Your task to perform on an android device: find snoozed emails in the gmail app Image 0: 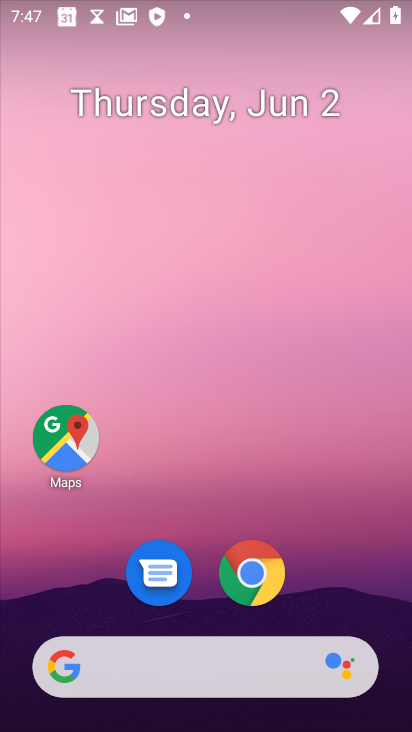
Step 0: drag from (160, 657) to (324, 122)
Your task to perform on an android device: find snoozed emails in the gmail app Image 1: 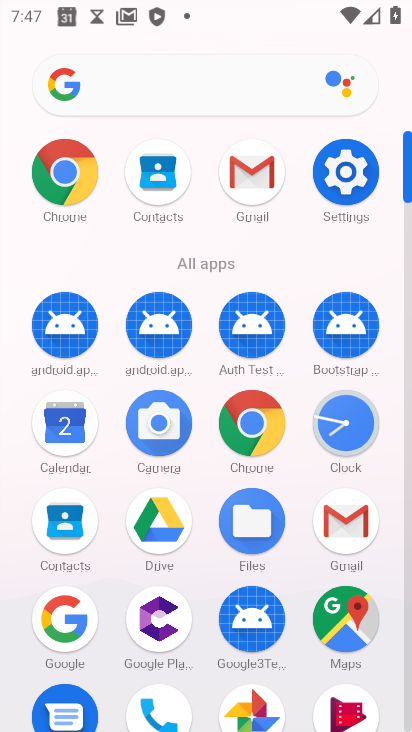
Step 1: click (261, 178)
Your task to perform on an android device: find snoozed emails in the gmail app Image 2: 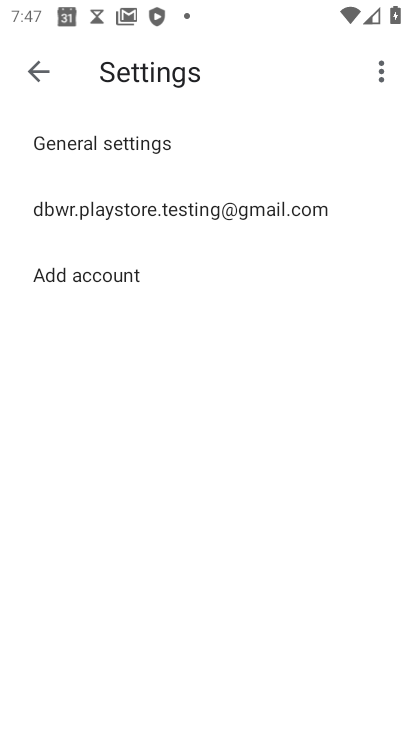
Step 2: click (44, 71)
Your task to perform on an android device: find snoozed emails in the gmail app Image 3: 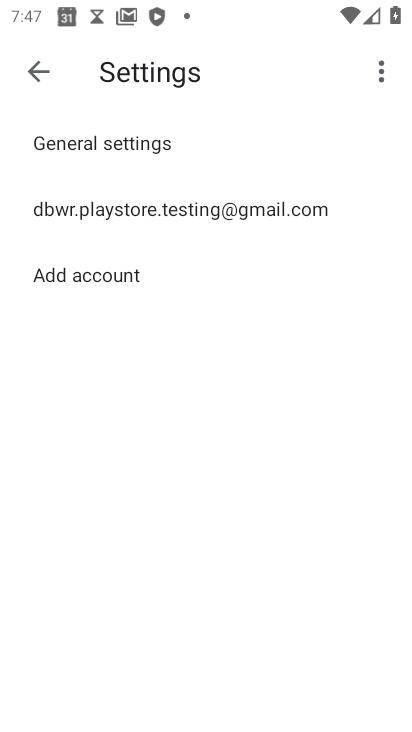
Step 3: click (38, 70)
Your task to perform on an android device: find snoozed emails in the gmail app Image 4: 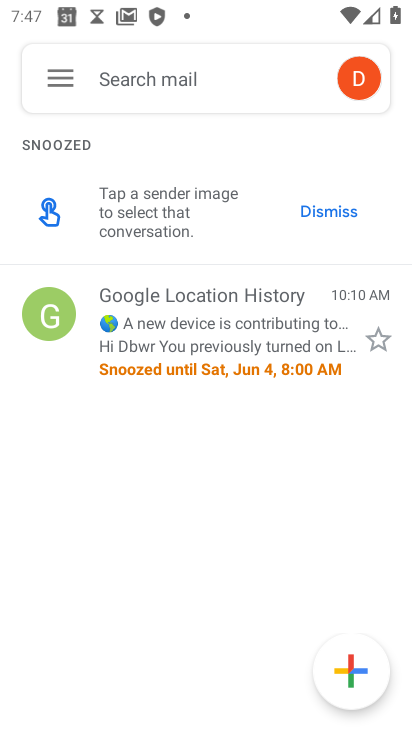
Step 4: click (57, 79)
Your task to perform on an android device: find snoozed emails in the gmail app Image 5: 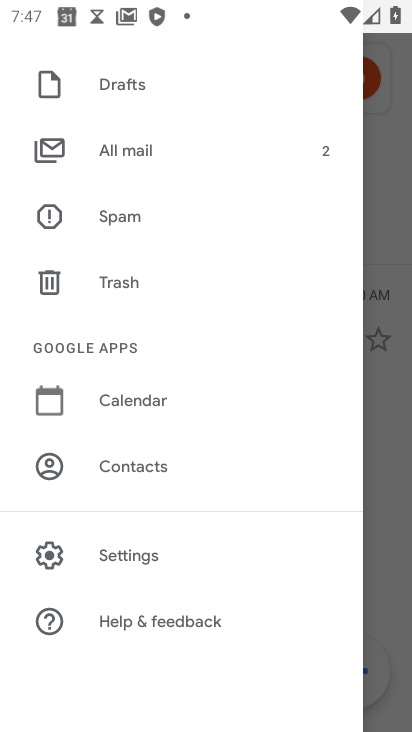
Step 5: drag from (216, 169) to (197, 528)
Your task to perform on an android device: find snoozed emails in the gmail app Image 6: 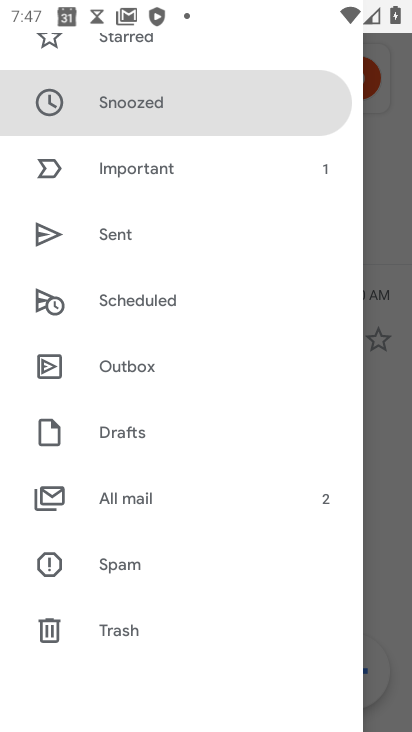
Step 6: click (132, 108)
Your task to perform on an android device: find snoozed emails in the gmail app Image 7: 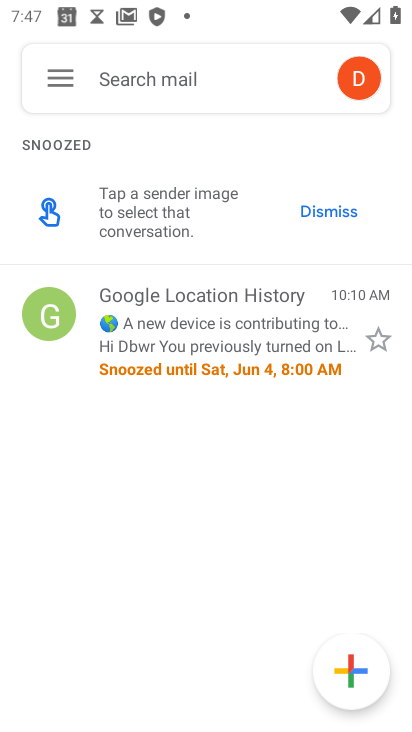
Step 7: task complete